Your task to perform on an android device: Open Wikipedia Image 0: 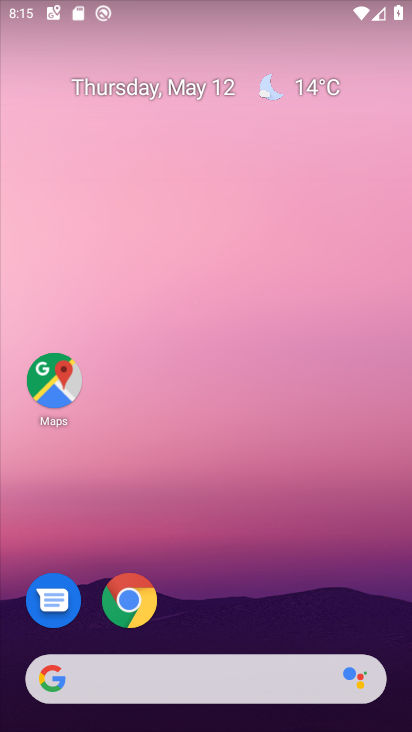
Step 0: drag from (267, 633) to (210, 8)
Your task to perform on an android device: Open Wikipedia Image 1: 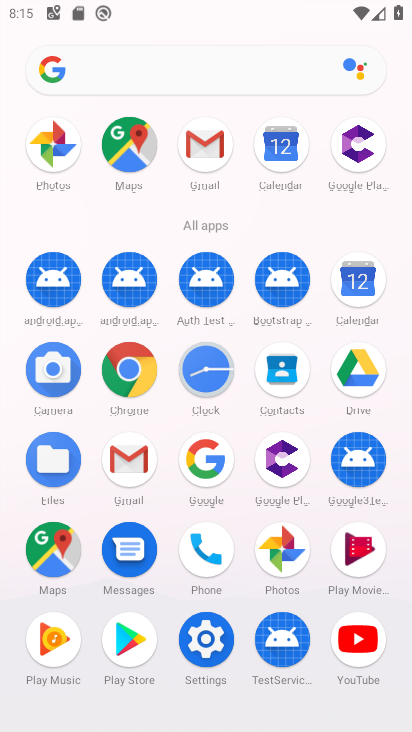
Step 1: click (132, 376)
Your task to perform on an android device: Open Wikipedia Image 2: 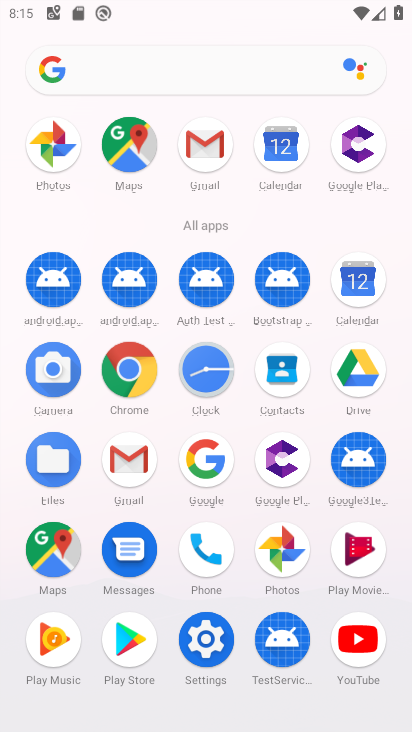
Step 2: click (132, 376)
Your task to perform on an android device: Open Wikipedia Image 3: 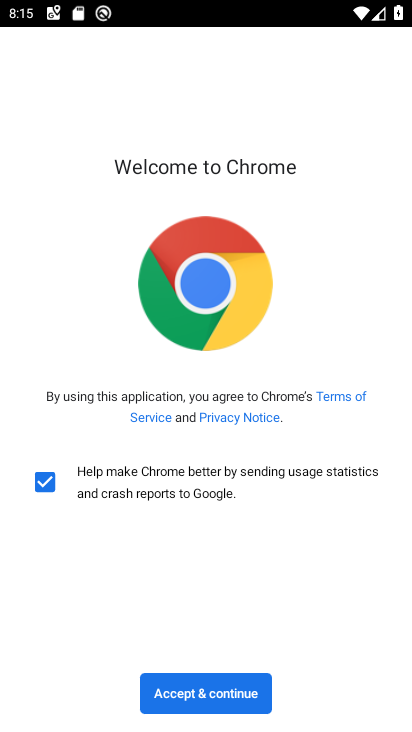
Step 3: click (210, 688)
Your task to perform on an android device: Open Wikipedia Image 4: 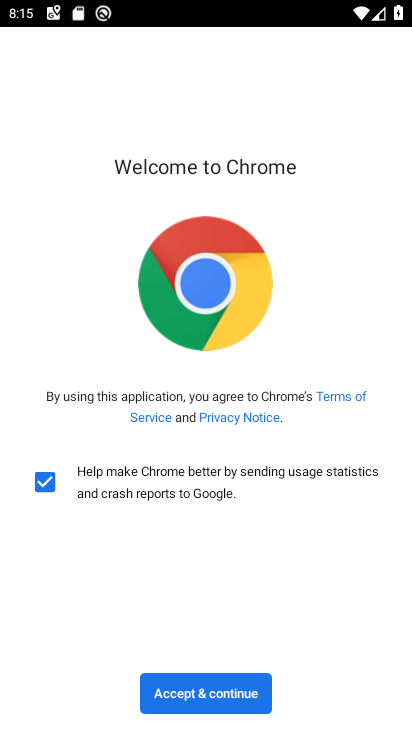
Step 4: click (212, 686)
Your task to perform on an android device: Open Wikipedia Image 5: 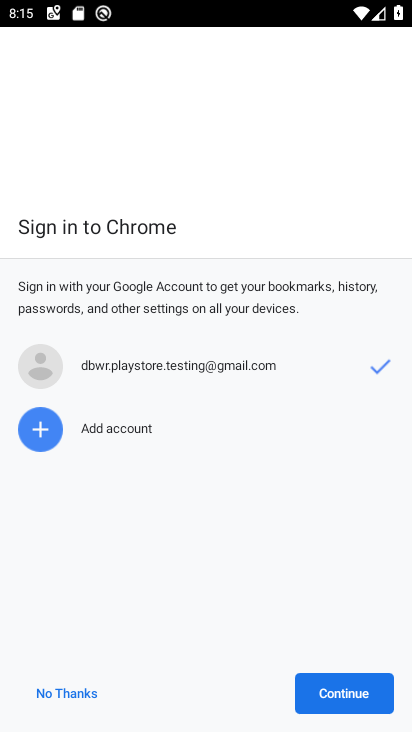
Step 5: click (349, 698)
Your task to perform on an android device: Open Wikipedia Image 6: 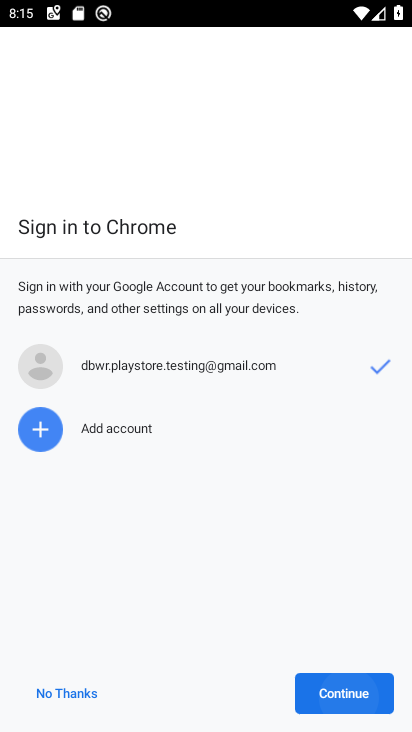
Step 6: click (349, 698)
Your task to perform on an android device: Open Wikipedia Image 7: 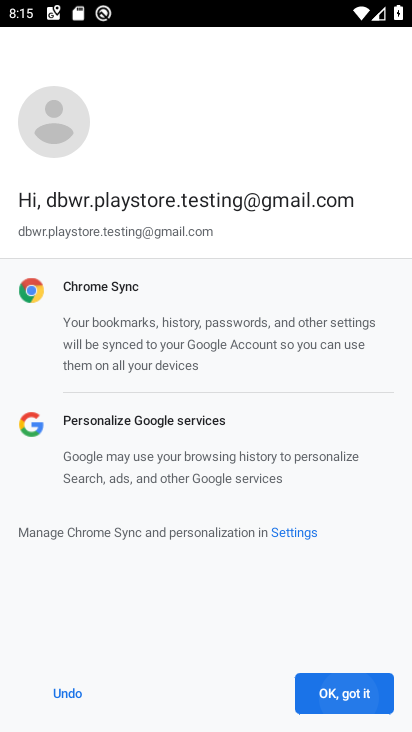
Step 7: click (348, 699)
Your task to perform on an android device: Open Wikipedia Image 8: 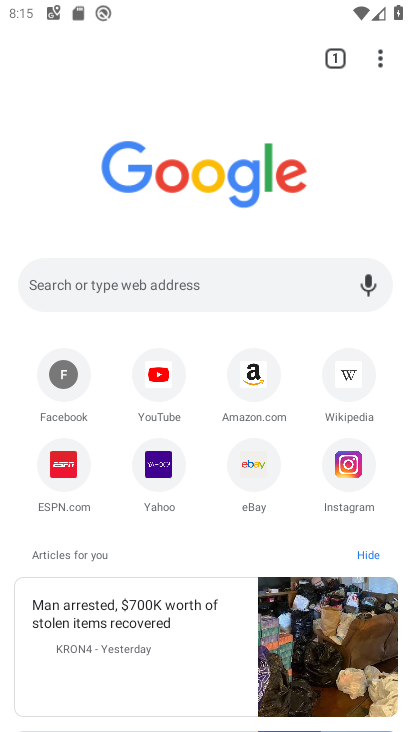
Step 8: click (346, 372)
Your task to perform on an android device: Open Wikipedia Image 9: 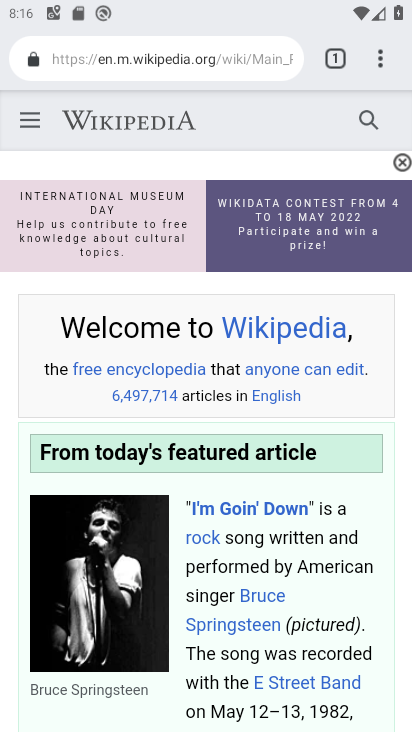
Step 9: task complete